Your task to perform on an android device: turn vacation reply on in the gmail app Image 0: 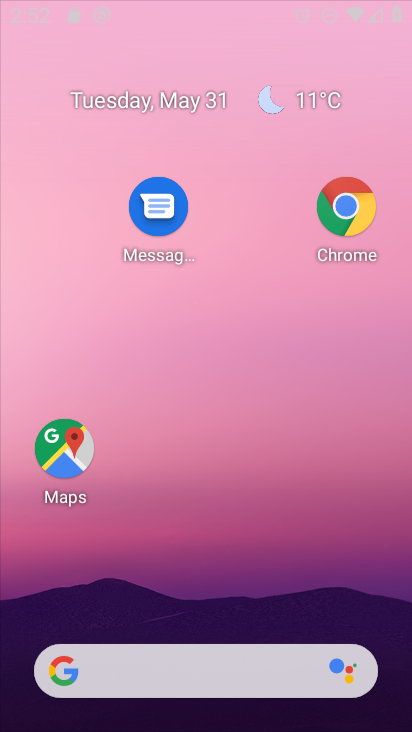
Step 0: drag from (206, 560) to (297, 65)
Your task to perform on an android device: turn vacation reply on in the gmail app Image 1: 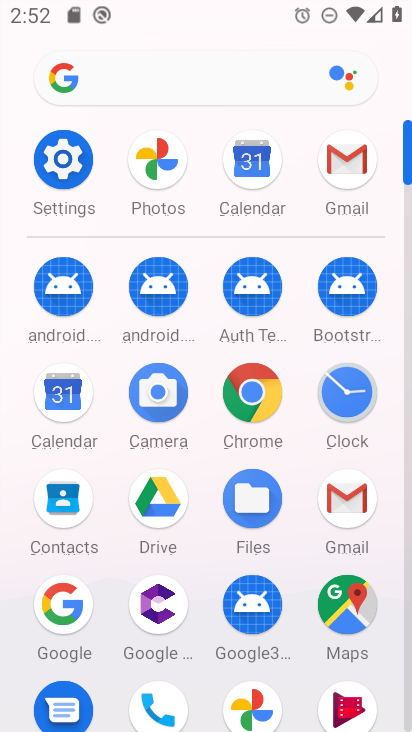
Step 1: click (339, 489)
Your task to perform on an android device: turn vacation reply on in the gmail app Image 2: 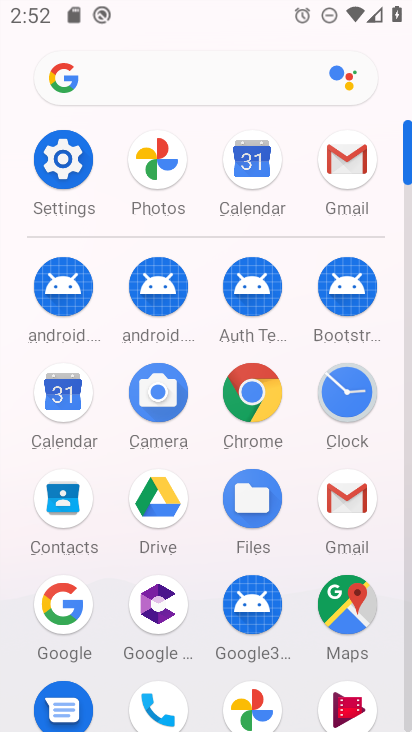
Step 2: click (339, 489)
Your task to perform on an android device: turn vacation reply on in the gmail app Image 3: 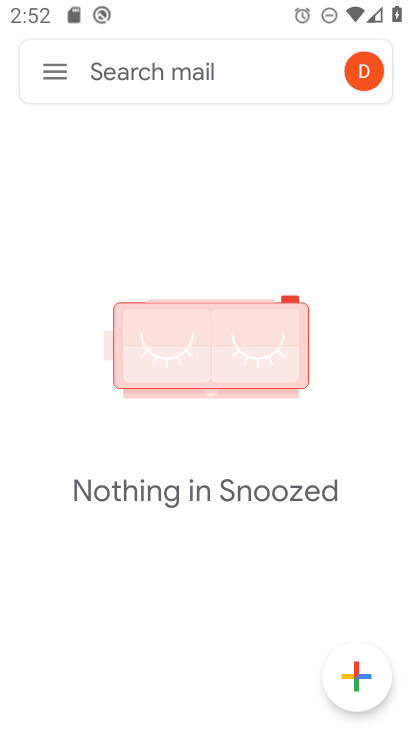
Step 3: click (36, 71)
Your task to perform on an android device: turn vacation reply on in the gmail app Image 4: 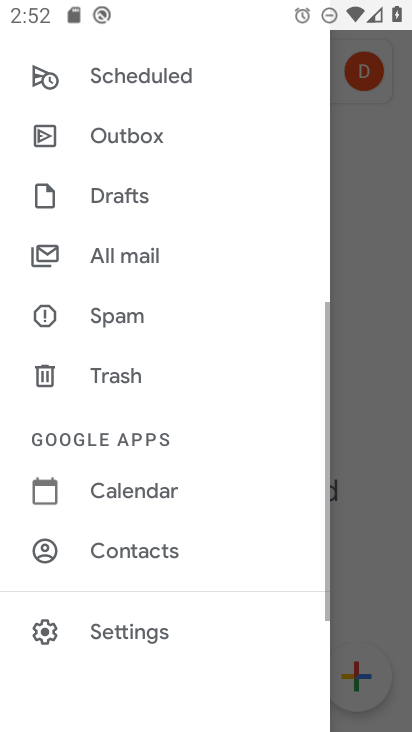
Step 4: drag from (161, 618) to (208, 263)
Your task to perform on an android device: turn vacation reply on in the gmail app Image 5: 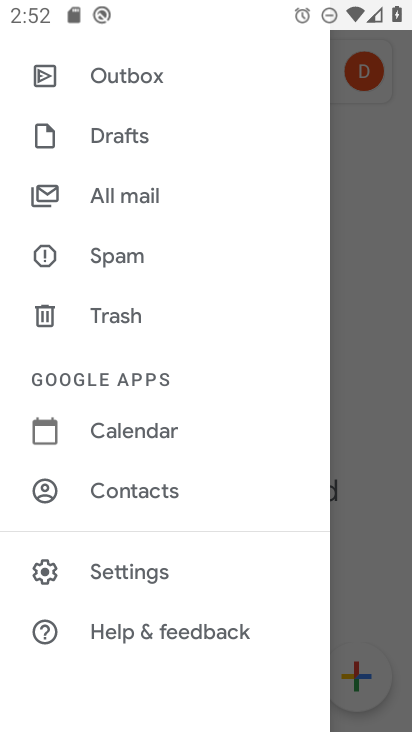
Step 5: click (120, 568)
Your task to perform on an android device: turn vacation reply on in the gmail app Image 6: 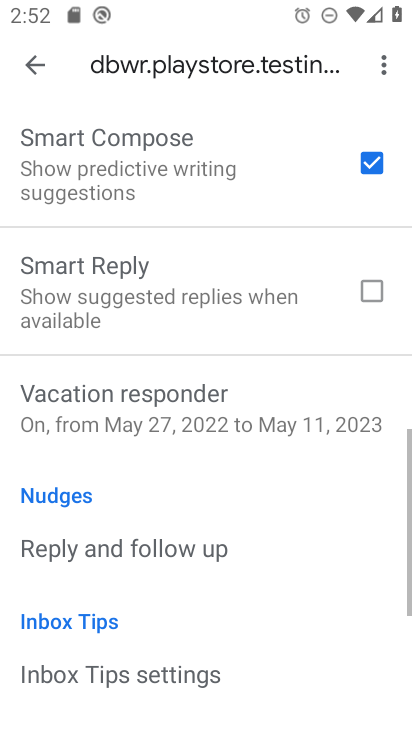
Step 6: drag from (309, 563) to (349, 208)
Your task to perform on an android device: turn vacation reply on in the gmail app Image 7: 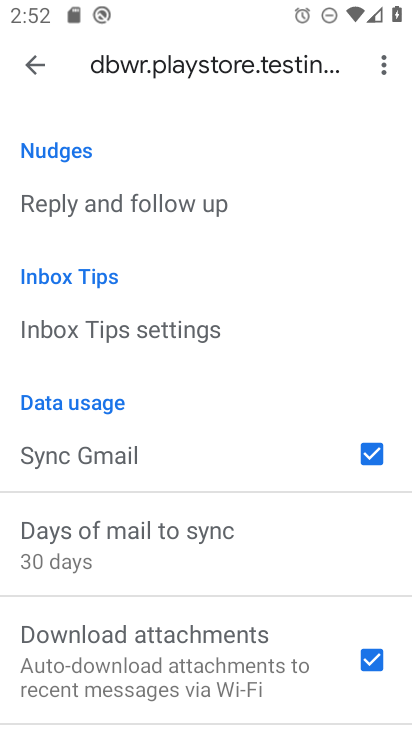
Step 7: drag from (205, 228) to (193, 563)
Your task to perform on an android device: turn vacation reply on in the gmail app Image 8: 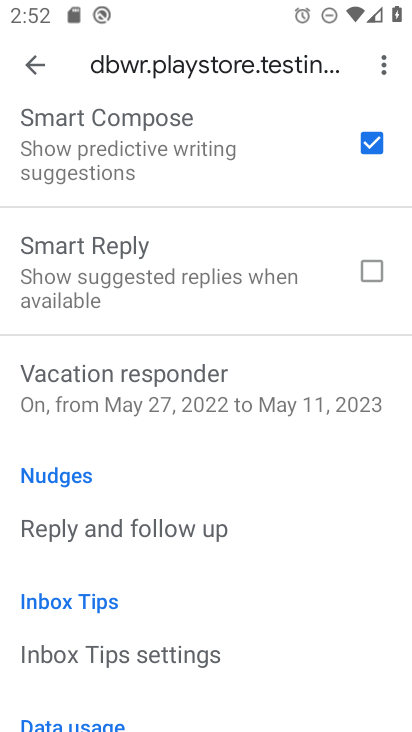
Step 8: click (133, 402)
Your task to perform on an android device: turn vacation reply on in the gmail app Image 9: 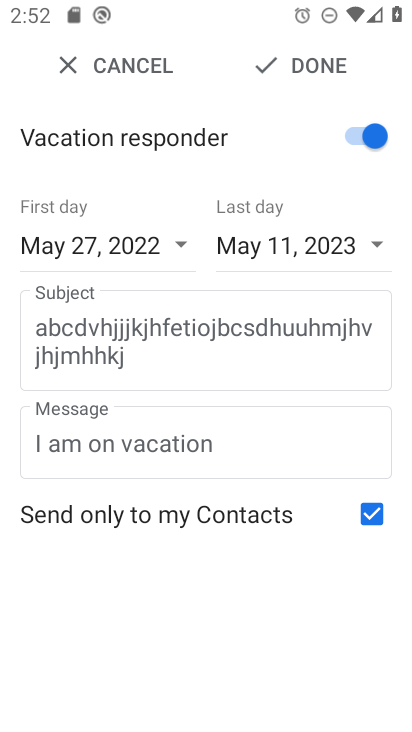
Step 9: drag from (208, 578) to (233, 379)
Your task to perform on an android device: turn vacation reply on in the gmail app Image 10: 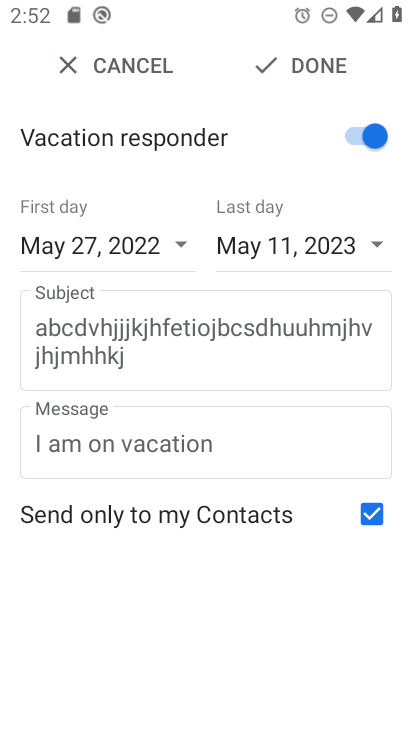
Step 10: click (288, 63)
Your task to perform on an android device: turn vacation reply on in the gmail app Image 11: 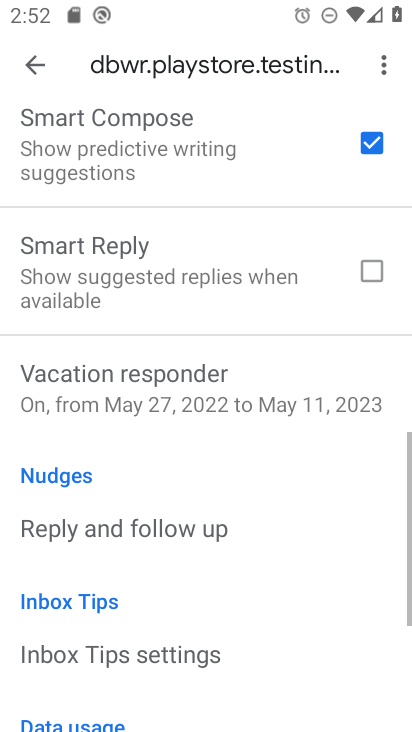
Step 11: task complete